Your task to perform on an android device: Open display settings Image 0: 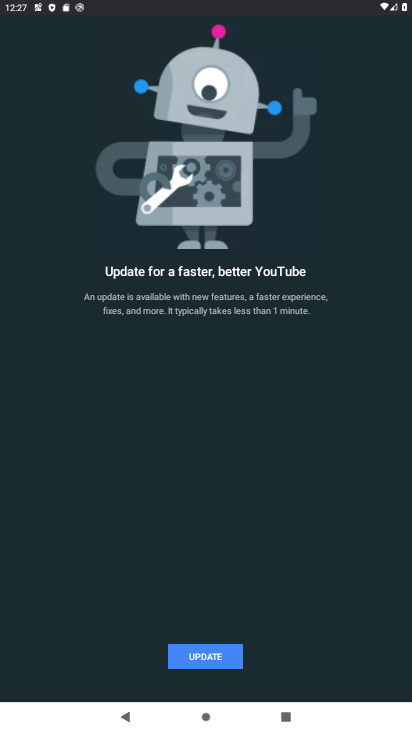
Step 0: press home button
Your task to perform on an android device: Open display settings Image 1: 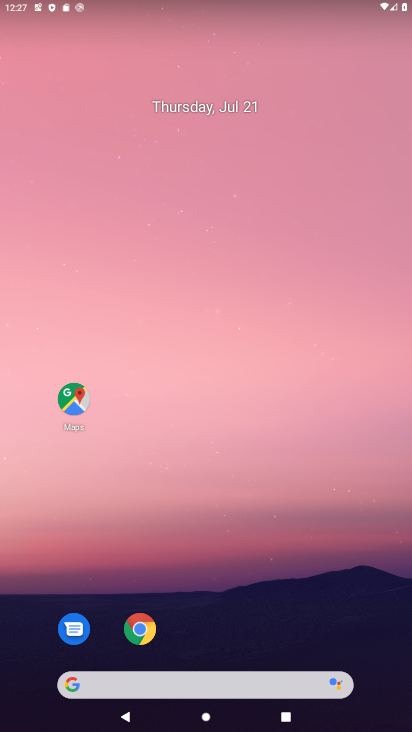
Step 1: click (186, 45)
Your task to perform on an android device: Open display settings Image 2: 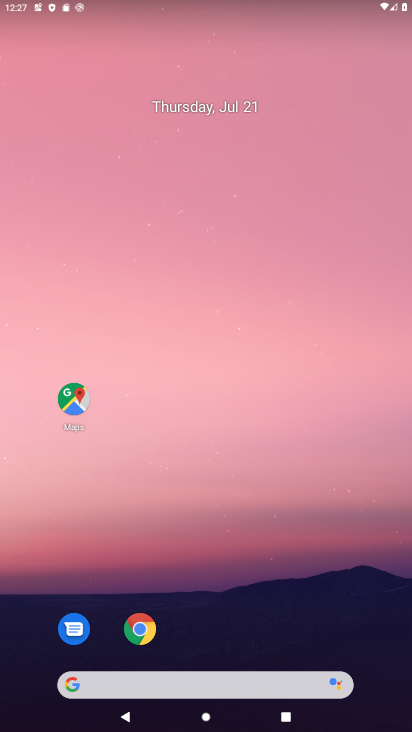
Step 2: drag from (194, 291) to (184, 25)
Your task to perform on an android device: Open display settings Image 3: 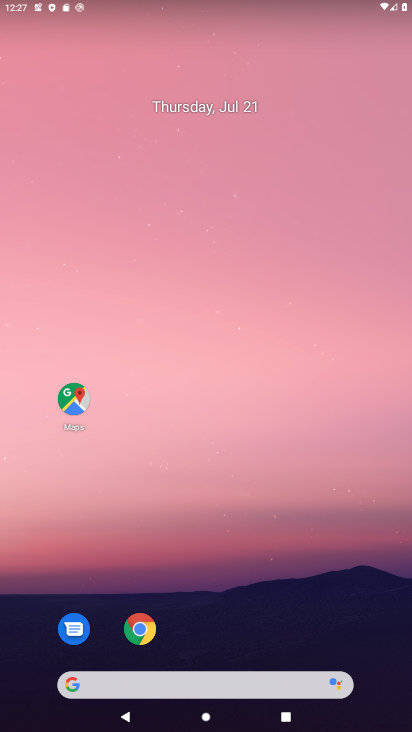
Step 3: drag from (318, 630) to (264, 29)
Your task to perform on an android device: Open display settings Image 4: 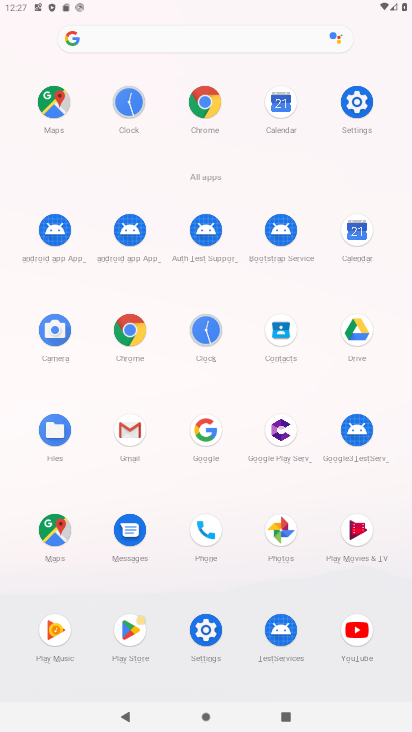
Step 4: click (357, 89)
Your task to perform on an android device: Open display settings Image 5: 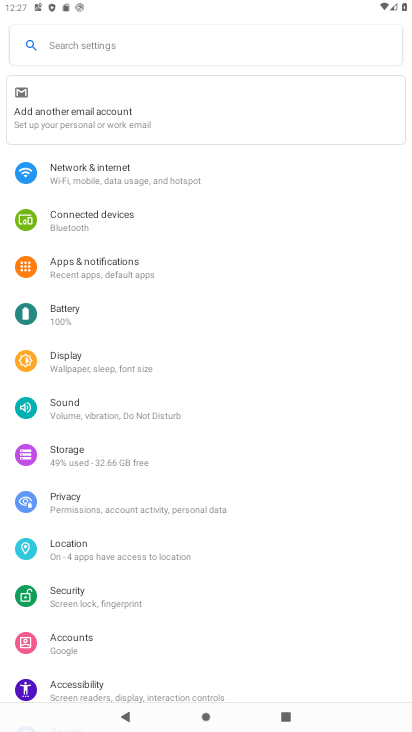
Step 5: click (98, 368)
Your task to perform on an android device: Open display settings Image 6: 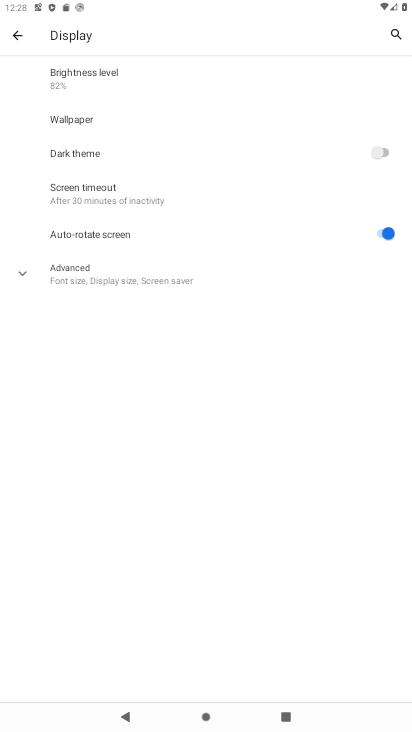
Step 6: task complete